Your task to perform on an android device: Open the phone app and click the voicemail tab. Image 0: 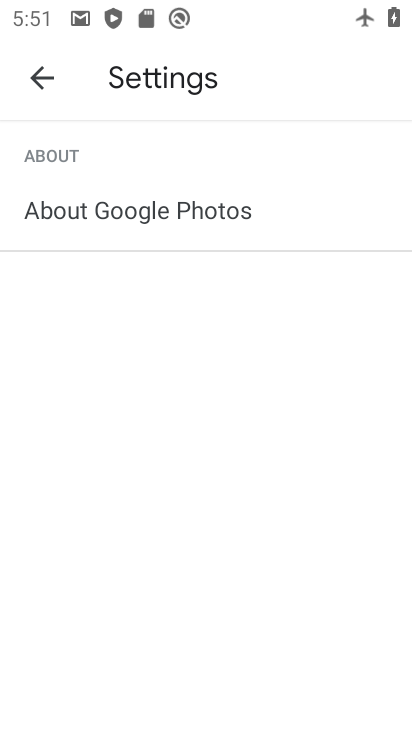
Step 0: press home button
Your task to perform on an android device: Open the phone app and click the voicemail tab. Image 1: 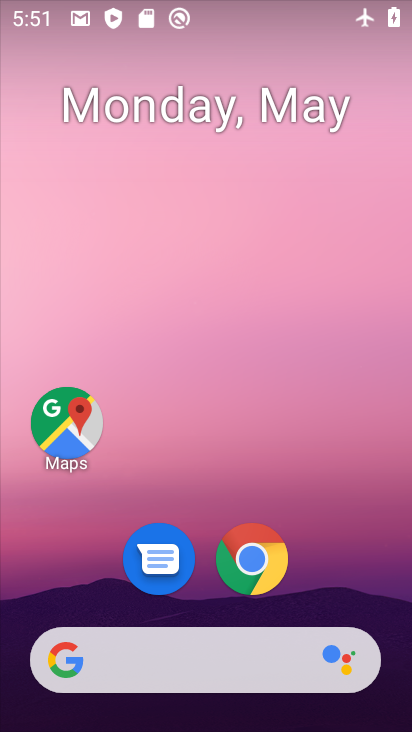
Step 1: drag from (332, 531) to (204, 61)
Your task to perform on an android device: Open the phone app and click the voicemail tab. Image 2: 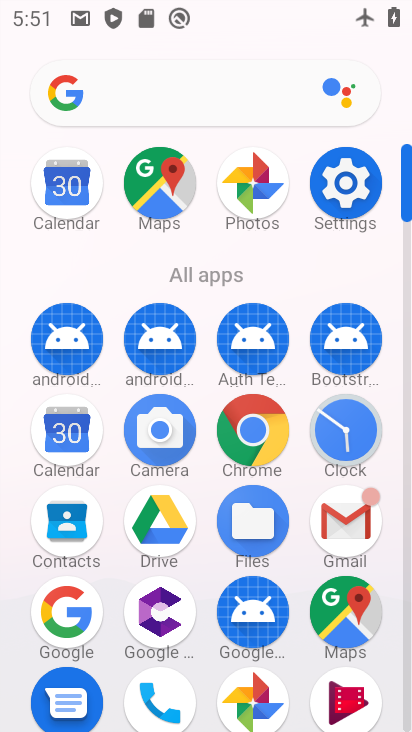
Step 2: click (152, 687)
Your task to perform on an android device: Open the phone app and click the voicemail tab. Image 3: 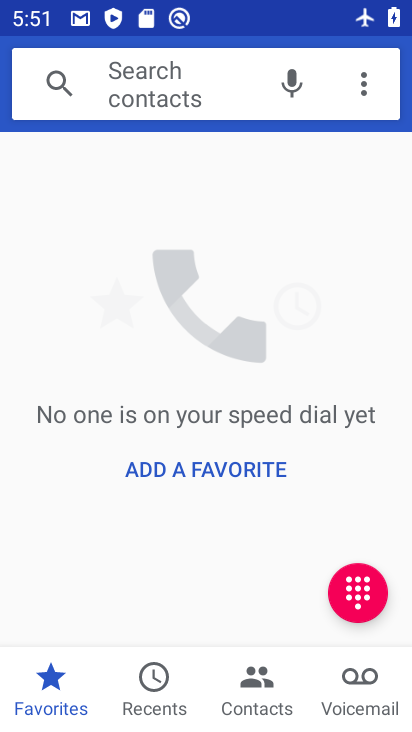
Step 3: click (364, 685)
Your task to perform on an android device: Open the phone app and click the voicemail tab. Image 4: 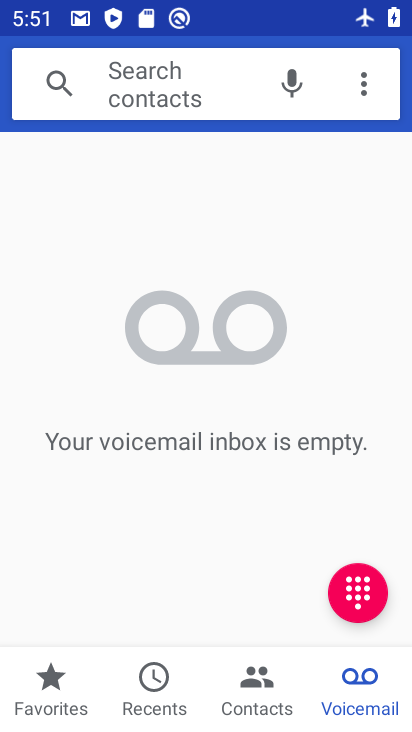
Step 4: click (364, 685)
Your task to perform on an android device: Open the phone app and click the voicemail tab. Image 5: 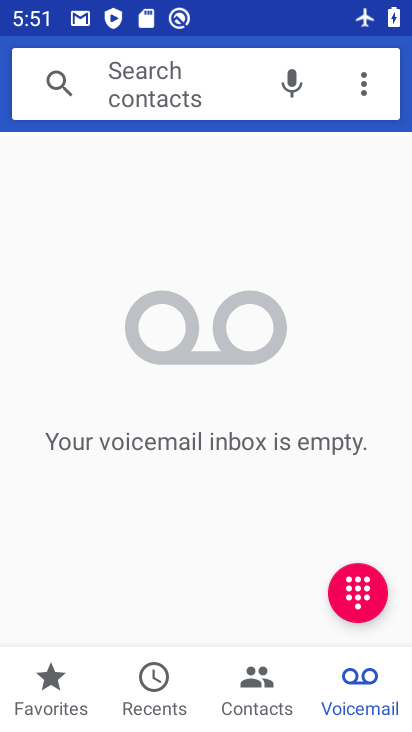
Step 5: task complete